Your task to perform on an android device: Go to eBay Image 0: 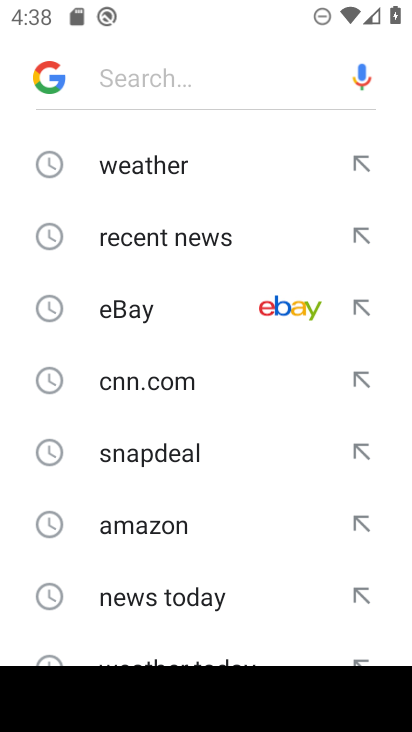
Step 0: click (115, 310)
Your task to perform on an android device: Go to eBay Image 1: 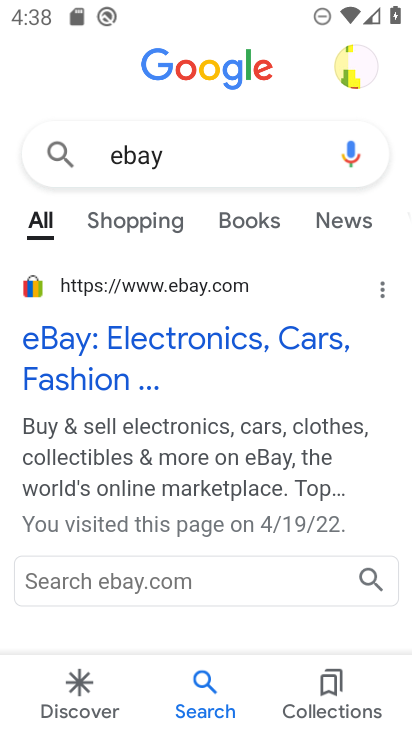
Step 1: click (120, 282)
Your task to perform on an android device: Go to eBay Image 2: 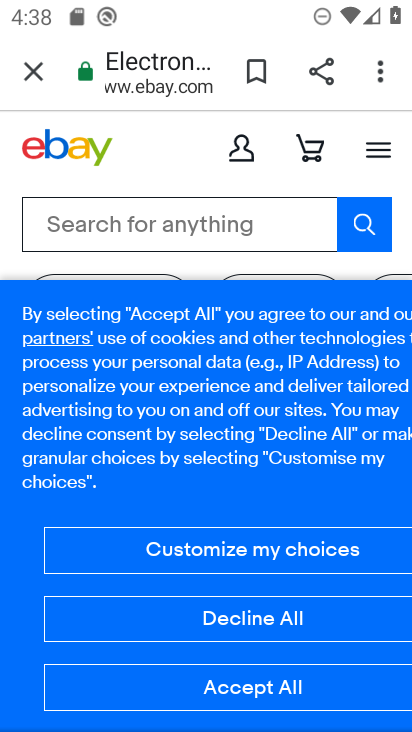
Step 2: task complete